Your task to perform on an android device: change alarm snooze length Image 0: 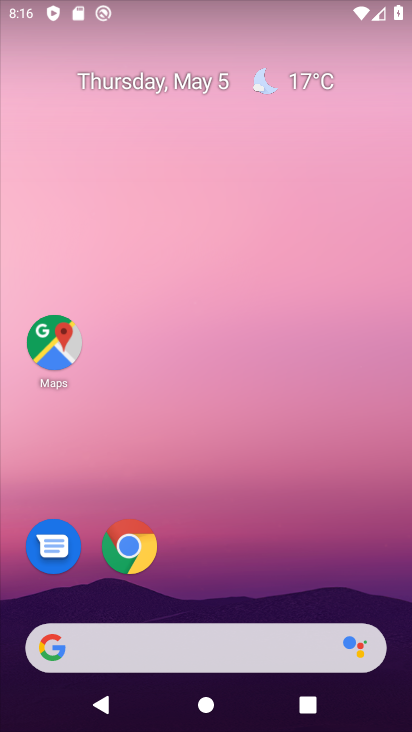
Step 0: drag from (215, 659) to (330, 149)
Your task to perform on an android device: change alarm snooze length Image 1: 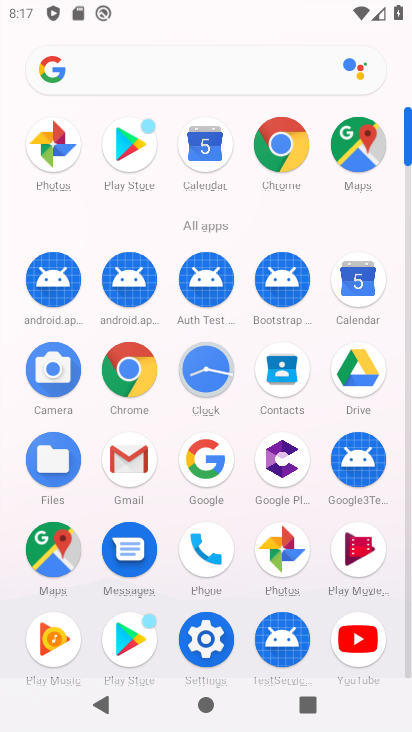
Step 1: click (209, 378)
Your task to perform on an android device: change alarm snooze length Image 2: 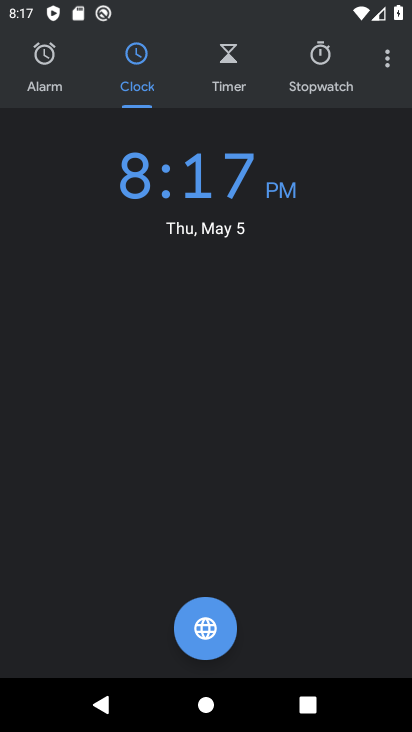
Step 2: click (386, 67)
Your task to perform on an android device: change alarm snooze length Image 3: 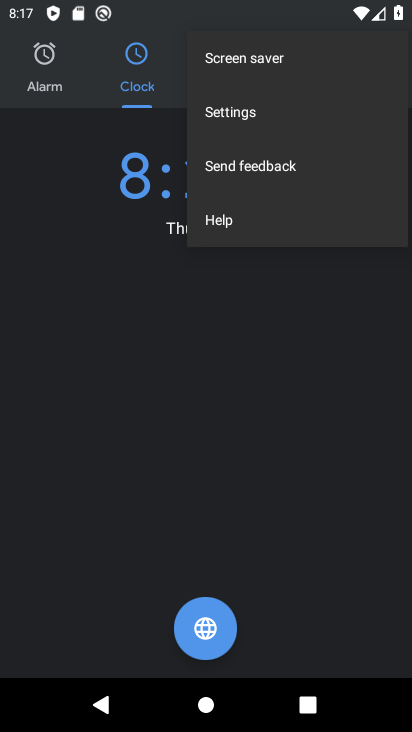
Step 3: click (242, 119)
Your task to perform on an android device: change alarm snooze length Image 4: 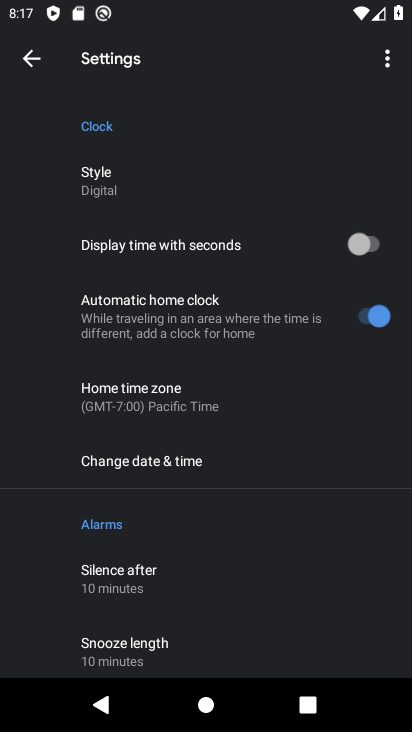
Step 4: drag from (193, 569) to (294, 364)
Your task to perform on an android device: change alarm snooze length Image 5: 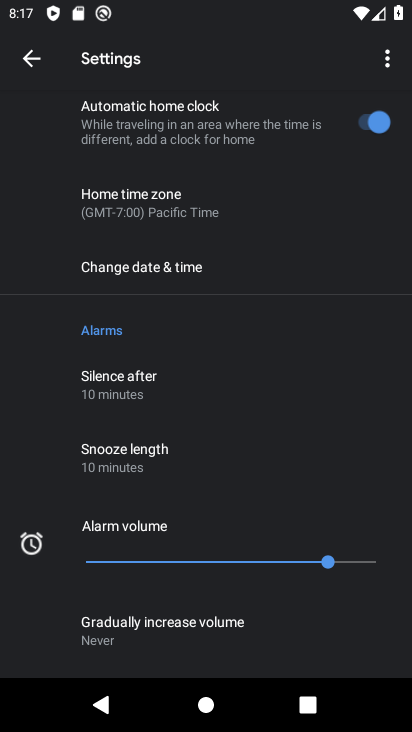
Step 5: click (159, 457)
Your task to perform on an android device: change alarm snooze length Image 6: 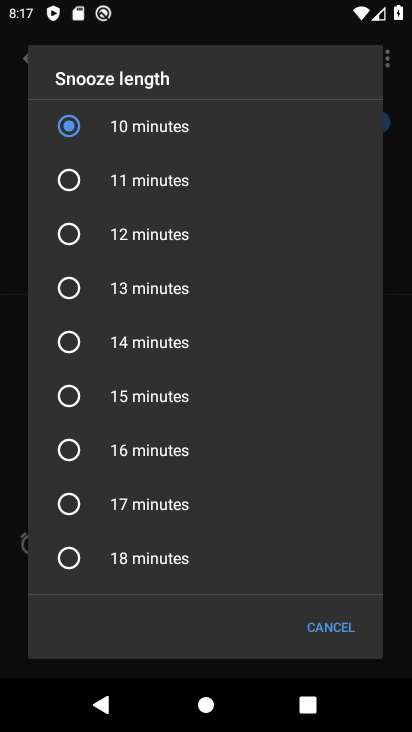
Step 6: click (72, 397)
Your task to perform on an android device: change alarm snooze length Image 7: 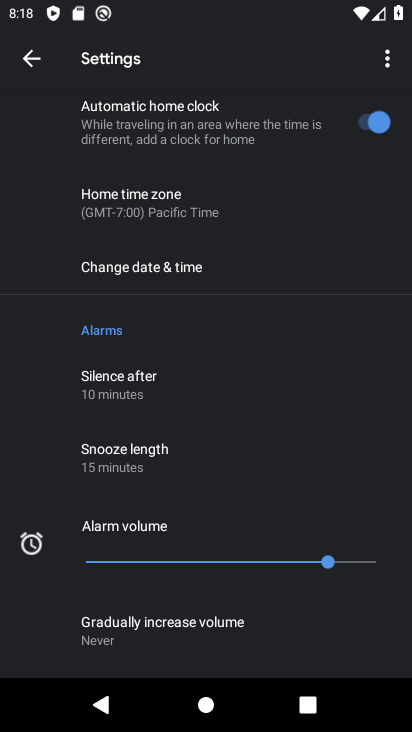
Step 7: task complete